Your task to perform on an android device: Show me the alarms in the clock app Image 0: 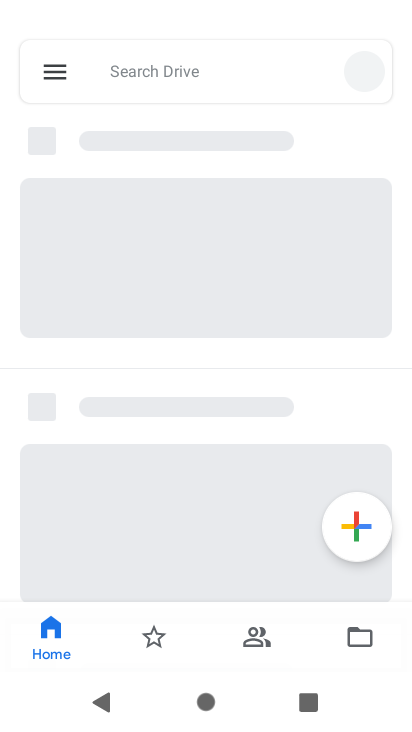
Step 0: press home button
Your task to perform on an android device: Show me the alarms in the clock app Image 1: 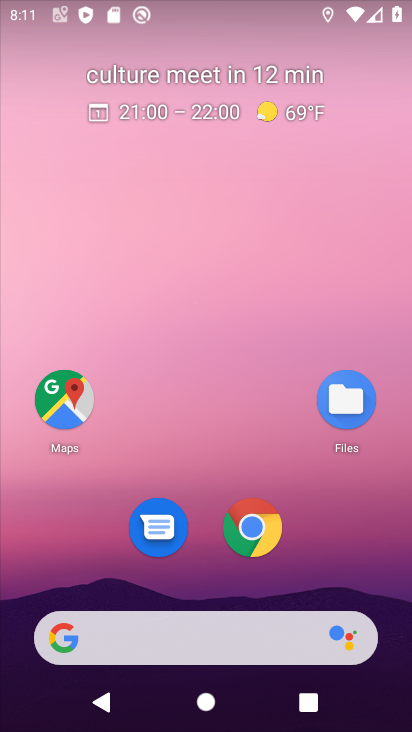
Step 1: drag from (207, 559) to (75, 117)
Your task to perform on an android device: Show me the alarms in the clock app Image 2: 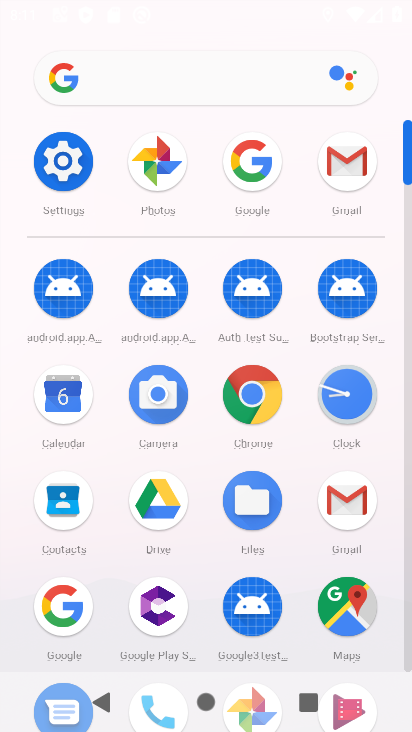
Step 2: click (346, 386)
Your task to perform on an android device: Show me the alarms in the clock app Image 3: 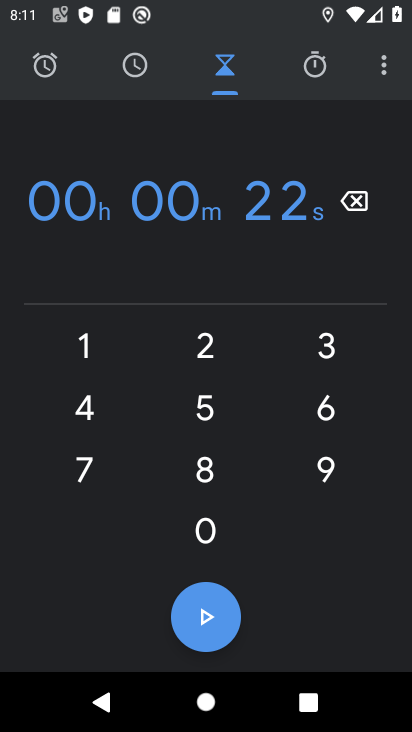
Step 3: click (54, 74)
Your task to perform on an android device: Show me the alarms in the clock app Image 4: 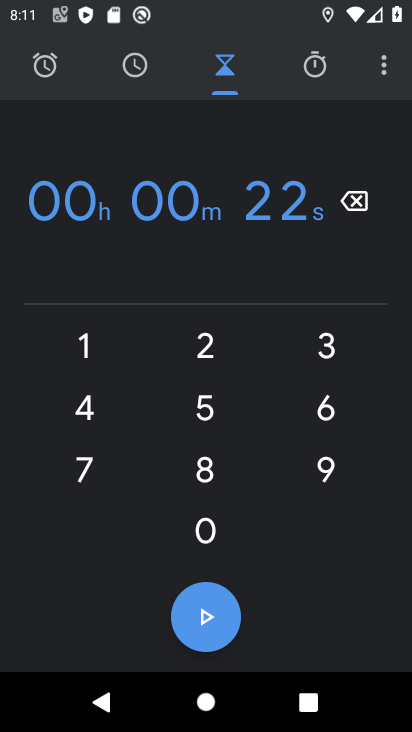
Step 4: click (50, 73)
Your task to perform on an android device: Show me the alarms in the clock app Image 5: 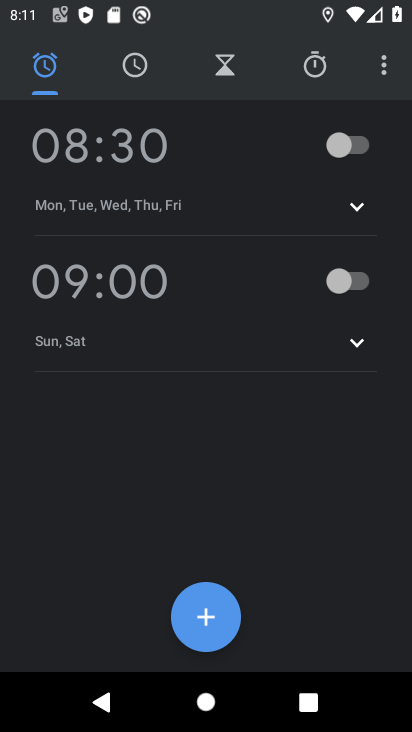
Step 5: task complete